Your task to perform on an android device: Show me recent news Image 0: 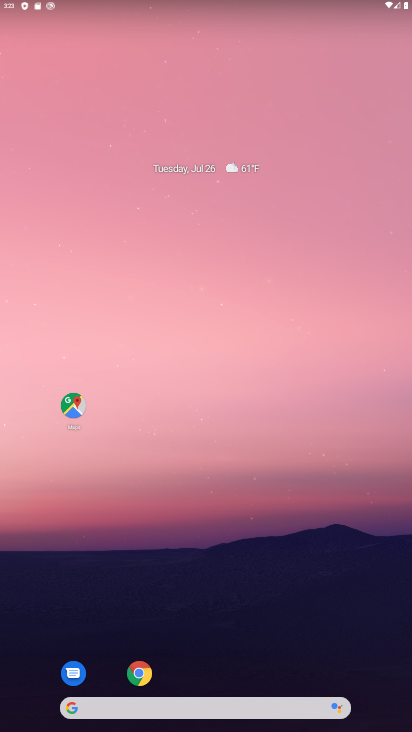
Step 0: click (306, 108)
Your task to perform on an android device: Show me recent news Image 1: 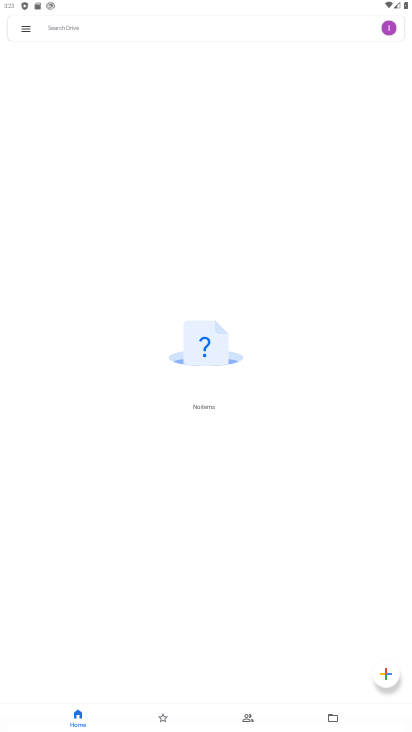
Step 1: task complete